Your task to perform on an android device: Open the map Image 0: 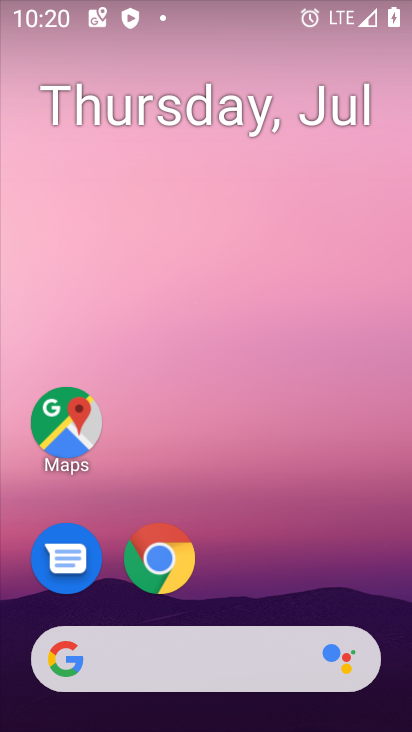
Step 0: drag from (353, 575) to (378, 57)
Your task to perform on an android device: Open the map Image 1: 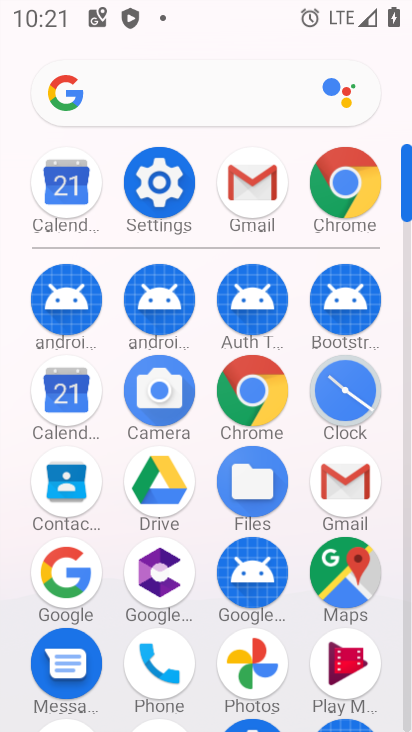
Step 1: click (345, 571)
Your task to perform on an android device: Open the map Image 2: 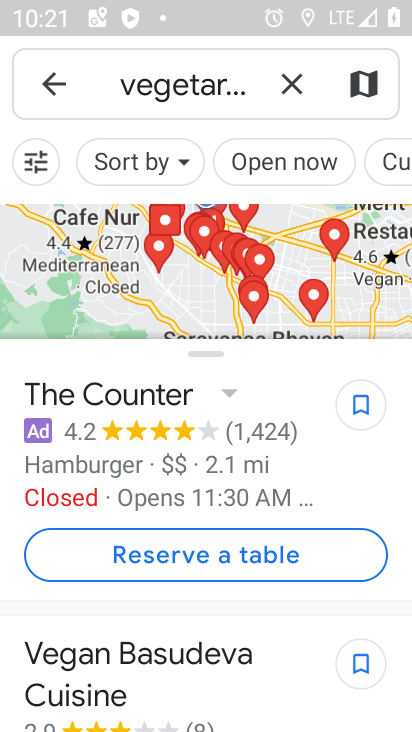
Step 2: task complete